Your task to perform on an android device: Go to CNN.com Image 0: 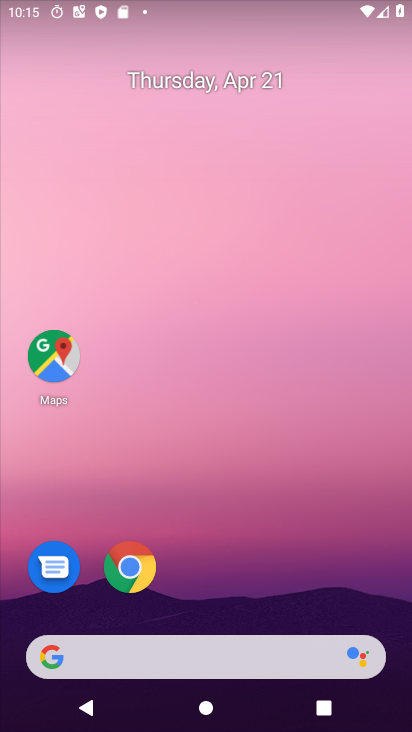
Step 0: click (243, 332)
Your task to perform on an android device: Go to CNN.com Image 1: 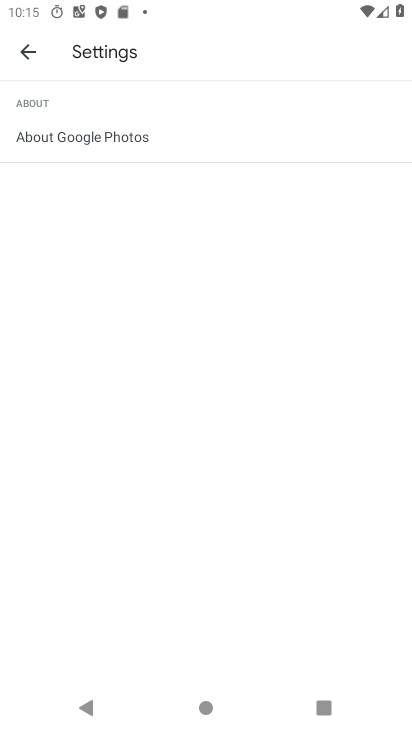
Step 1: press home button
Your task to perform on an android device: Go to CNN.com Image 2: 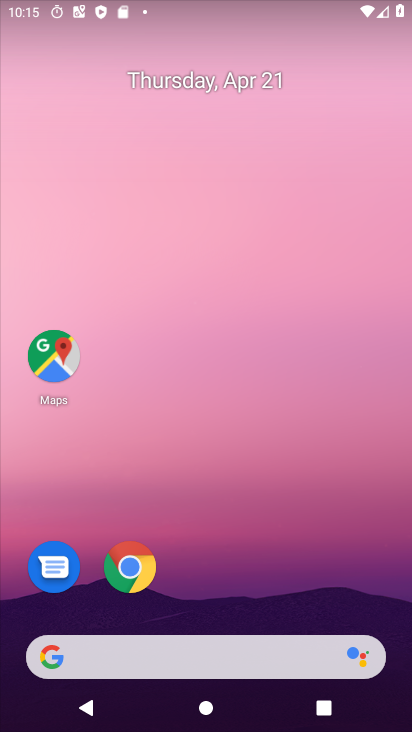
Step 2: click (143, 565)
Your task to perform on an android device: Go to CNN.com Image 3: 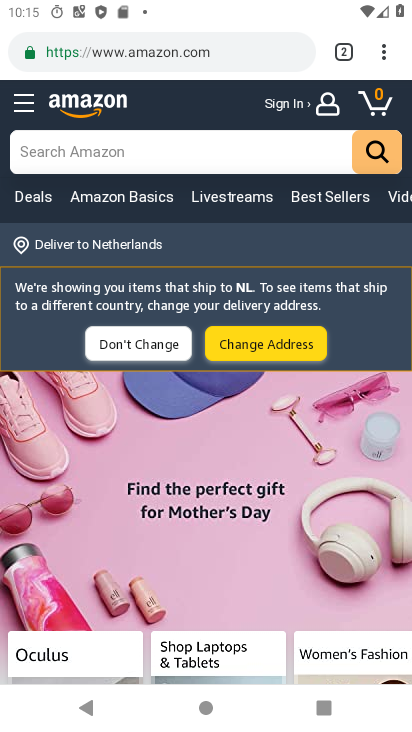
Step 3: click (169, 49)
Your task to perform on an android device: Go to CNN.com Image 4: 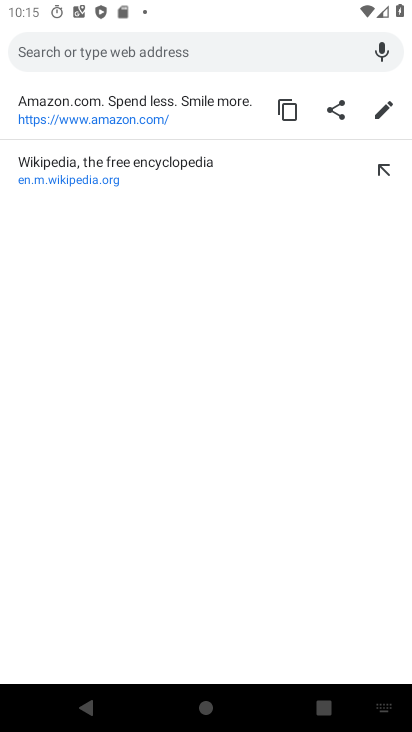
Step 4: type "CNN.com"
Your task to perform on an android device: Go to CNN.com Image 5: 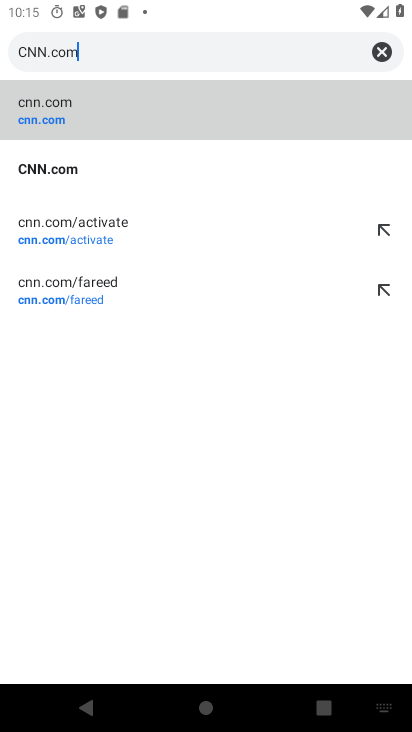
Step 5: click (91, 102)
Your task to perform on an android device: Go to CNN.com Image 6: 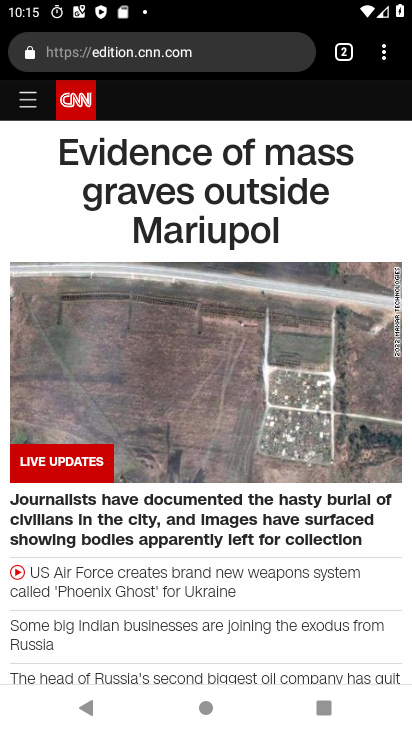
Step 6: task complete